Your task to perform on an android device: turn on showing notifications on the lock screen Image 0: 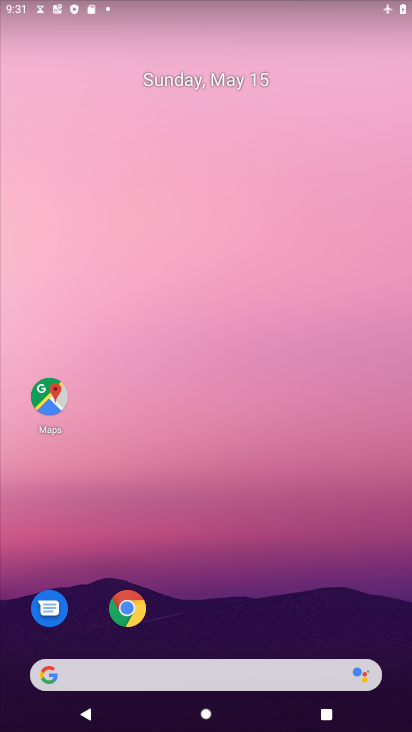
Step 0: drag from (343, 503) to (12, 172)
Your task to perform on an android device: turn on showing notifications on the lock screen Image 1: 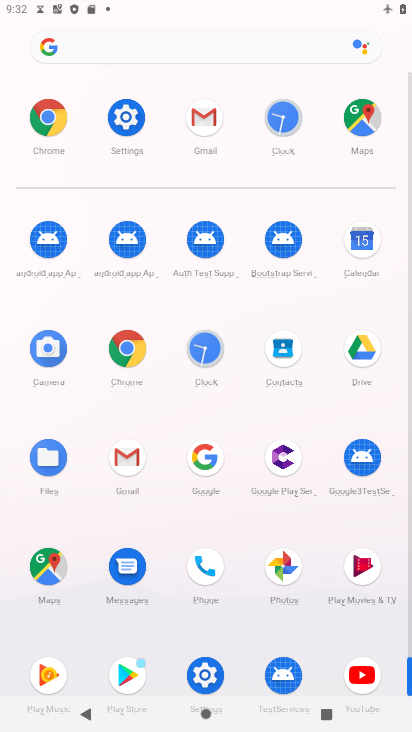
Step 1: drag from (308, 174) to (290, 9)
Your task to perform on an android device: turn on showing notifications on the lock screen Image 2: 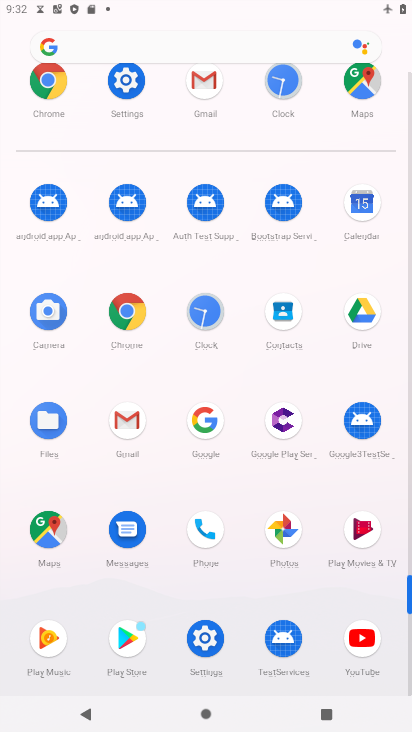
Step 2: drag from (275, 190) to (281, 450)
Your task to perform on an android device: turn on showing notifications on the lock screen Image 3: 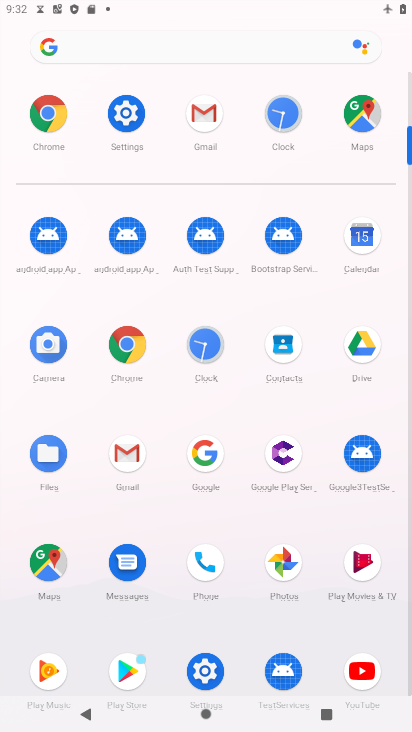
Step 3: click (134, 132)
Your task to perform on an android device: turn on showing notifications on the lock screen Image 4: 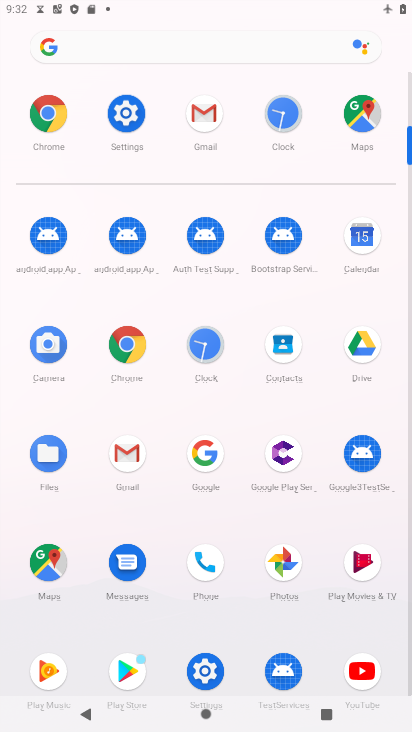
Step 4: click (106, 103)
Your task to perform on an android device: turn on showing notifications on the lock screen Image 5: 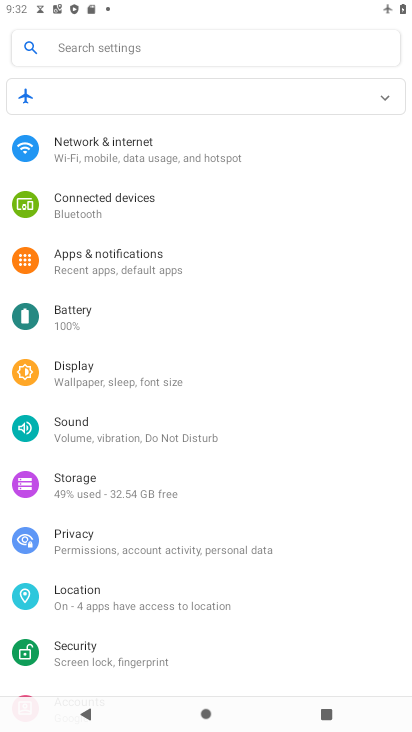
Step 5: drag from (241, 635) to (251, 321)
Your task to perform on an android device: turn on showing notifications on the lock screen Image 6: 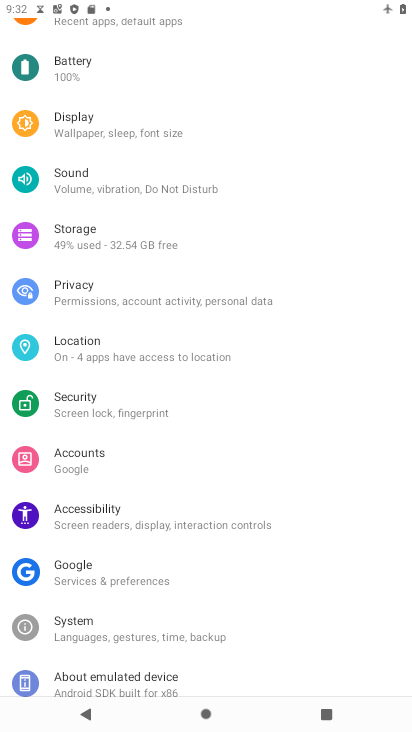
Step 6: drag from (164, 214) to (215, 556)
Your task to perform on an android device: turn on showing notifications on the lock screen Image 7: 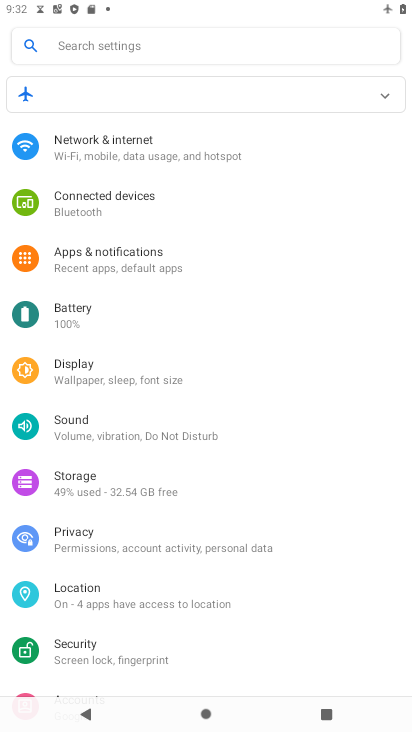
Step 7: drag from (151, 279) to (189, 552)
Your task to perform on an android device: turn on showing notifications on the lock screen Image 8: 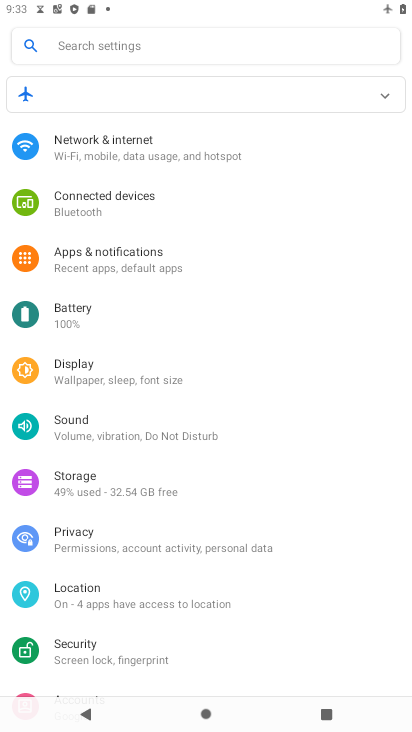
Step 8: click (130, 268)
Your task to perform on an android device: turn on showing notifications on the lock screen Image 9: 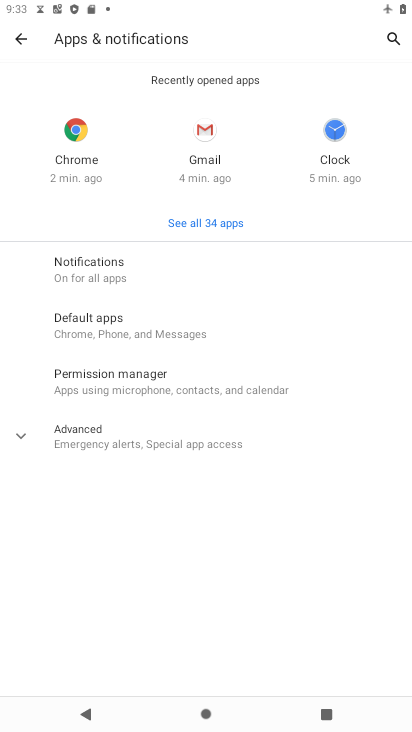
Step 9: click (78, 269)
Your task to perform on an android device: turn on showing notifications on the lock screen Image 10: 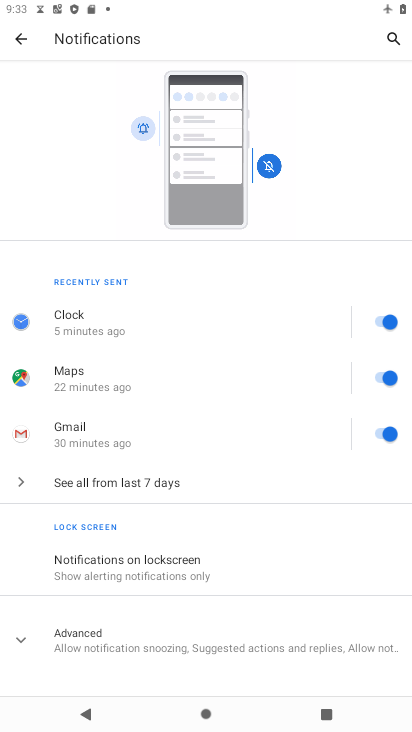
Step 10: click (132, 569)
Your task to perform on an android device: turn on showing notifications on the lock screen Image 11: 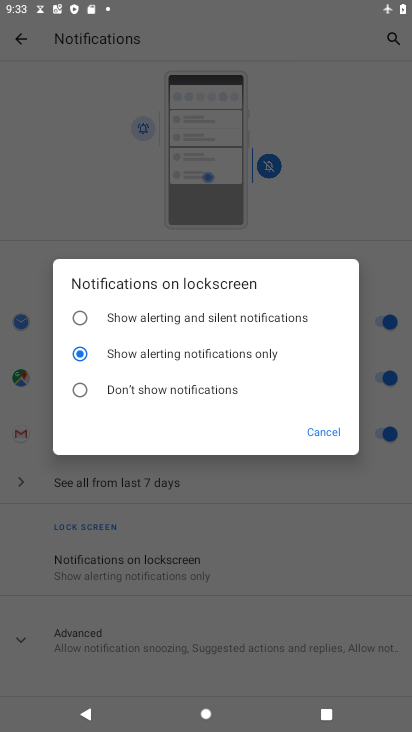
Step 11: click (123, 389)
Your task to perform on an android device: turn on showing notifications on the lock screen Image 12: 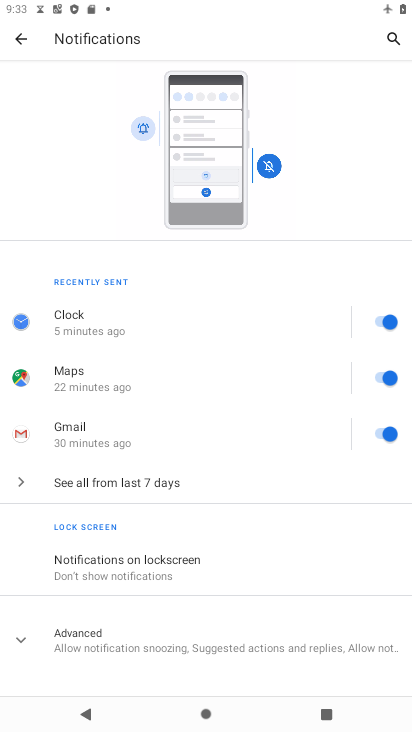
Step 12: task complete